Your task to perform on an android device: When is my next meeting? Image 0: 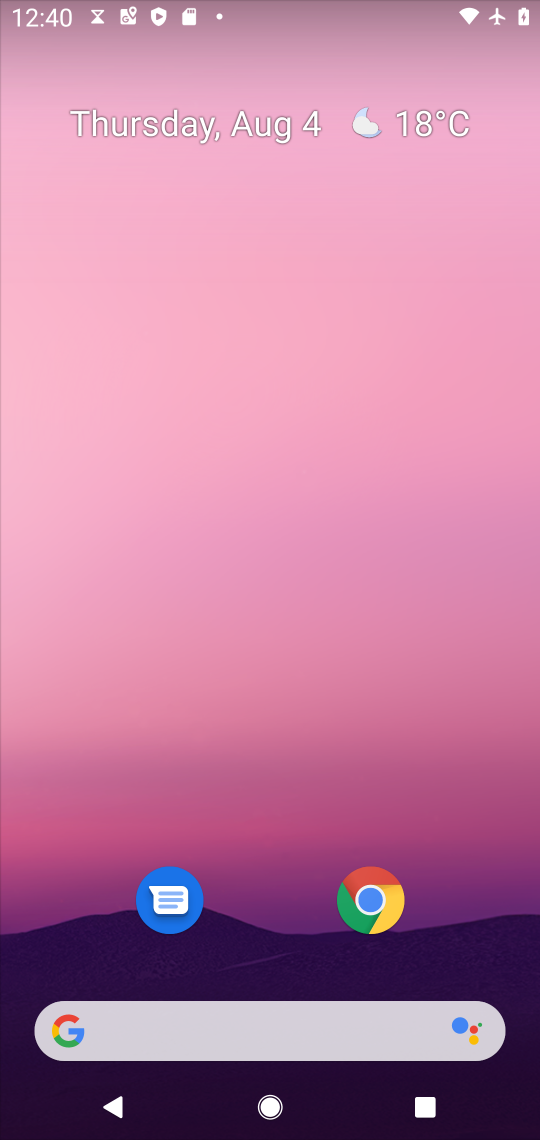
Step 0: drag from (276, 969) to (306, 231)
Your task to perform on an android device: When is my next meeting? Image 1: 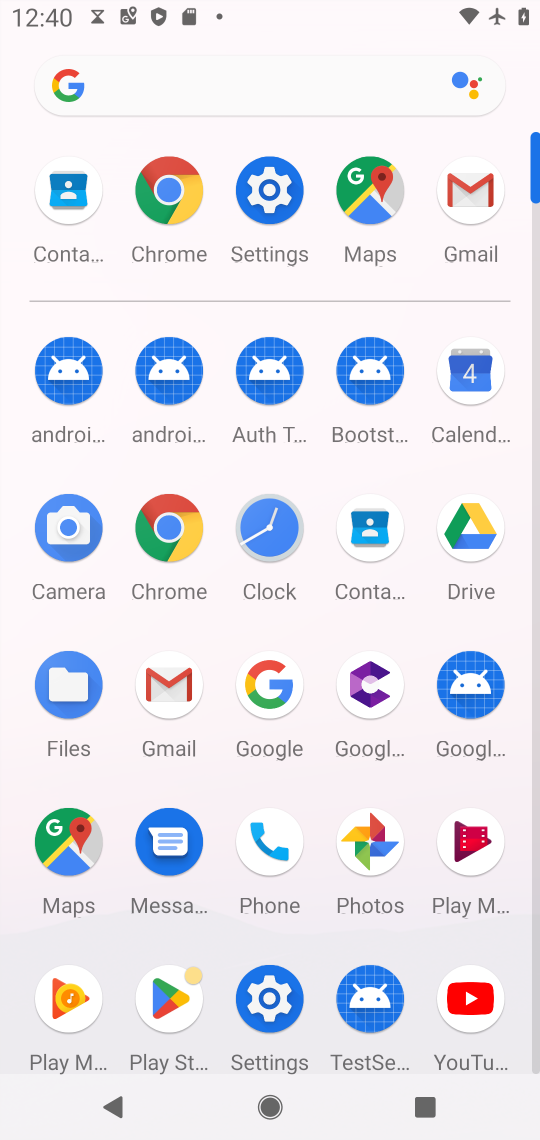
Step 1: click (467, 381)
Your task to perform on an android device: When is my next meeting? Image 2: 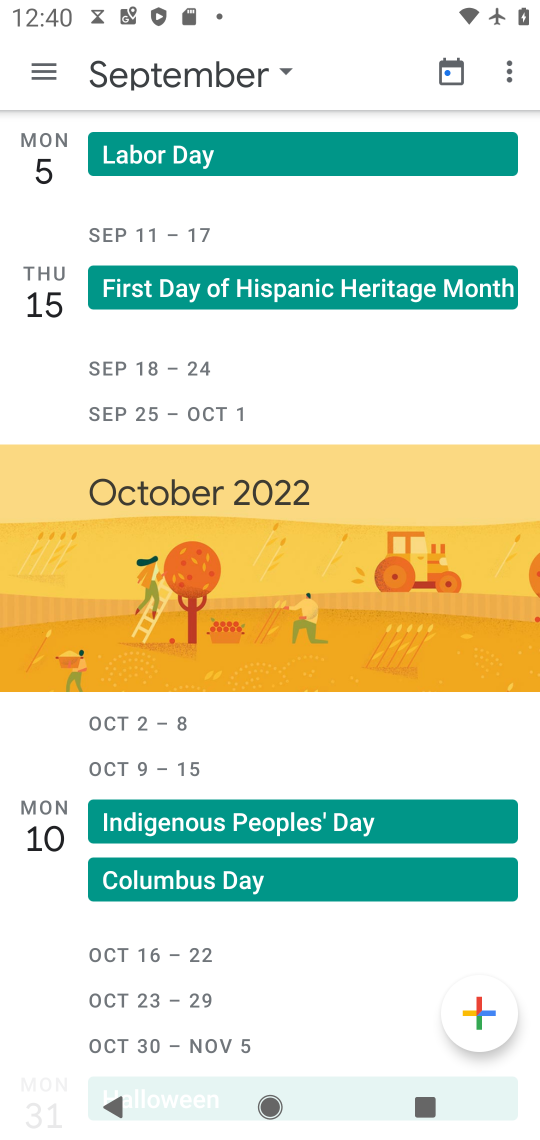
Step 2: click (53, 66)
Your task to perform on an android device: When is my next meeting? Image 3: 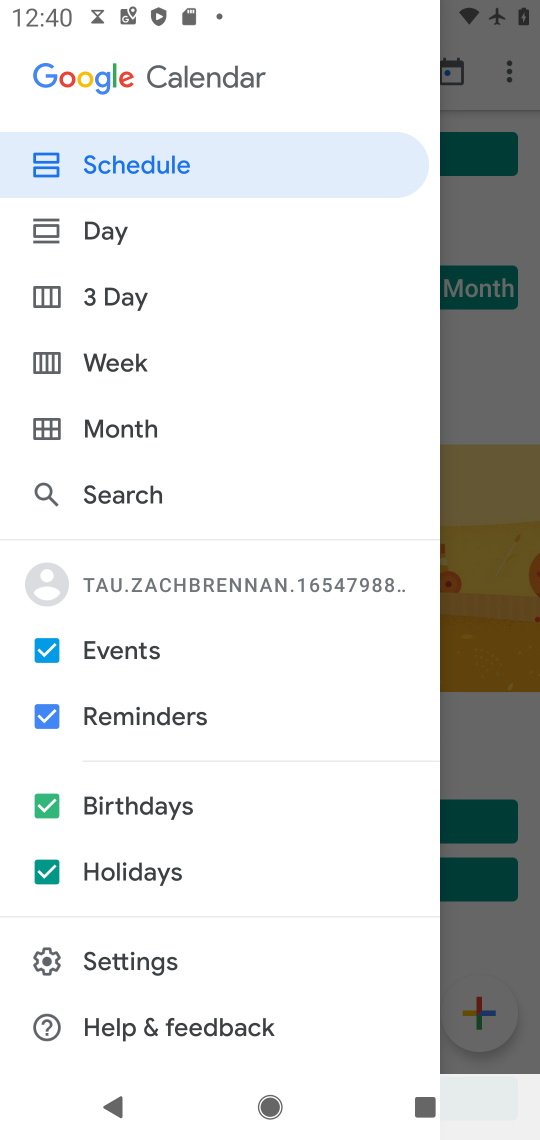
Step 3: click (108, 177)
Your task to perform on an android device: When is my next meeting? Image 4: 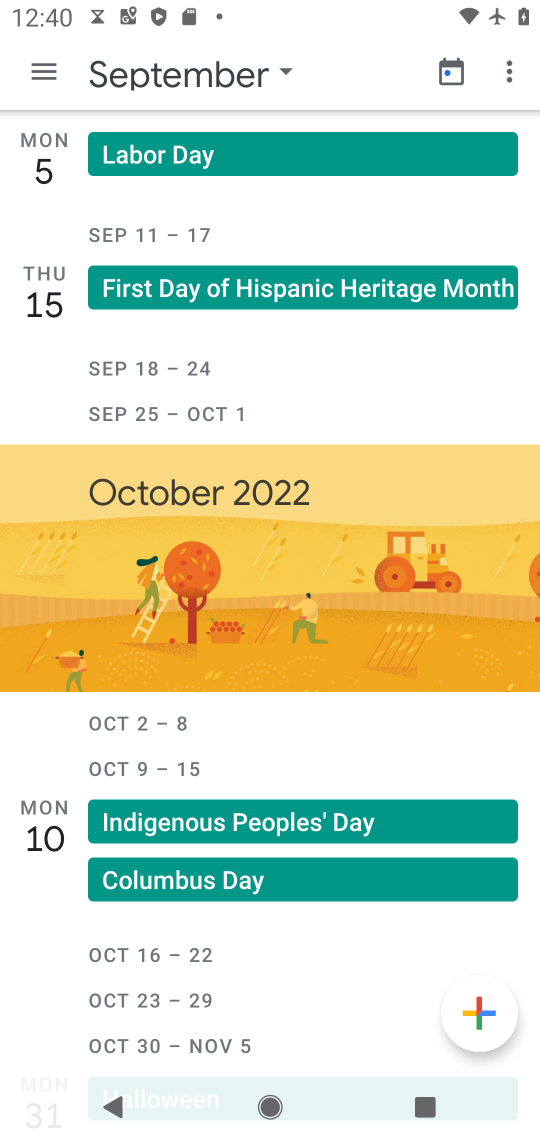
Step 4: task complete